Your task to perform on an android device: Toggle the flashlight Image 0: 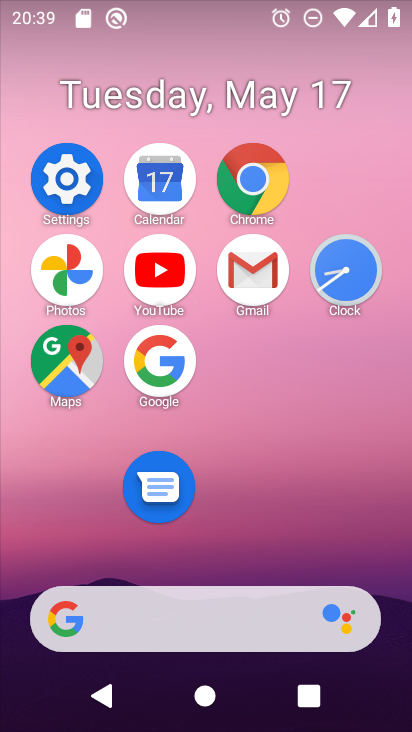
Step 0: drag from (182, 4) to (201, 373)
Your task to perform on an android device: Toggle the flashlight Image 1: 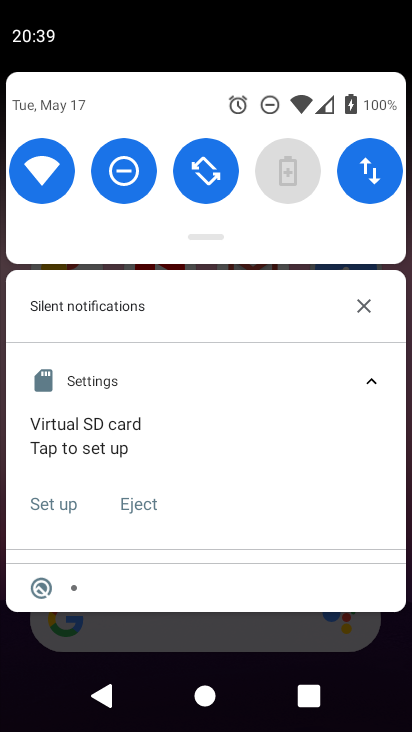
Step 1: task complete